Your task to perform on an android device: Go to notification settings Image 0: 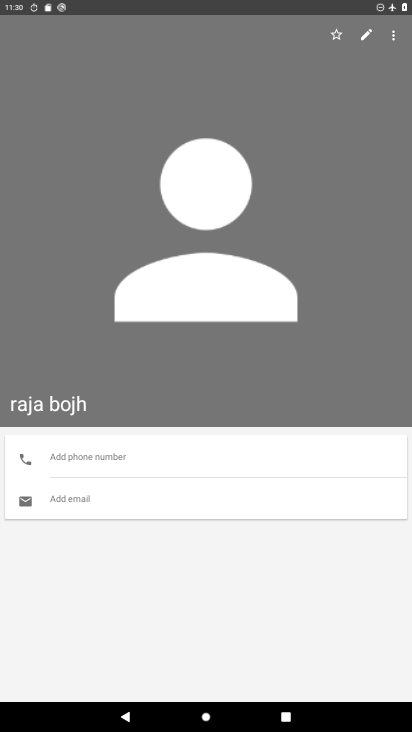
Step 0: press home button
Your task to perform on an android device: Go to notification settings Image 1: 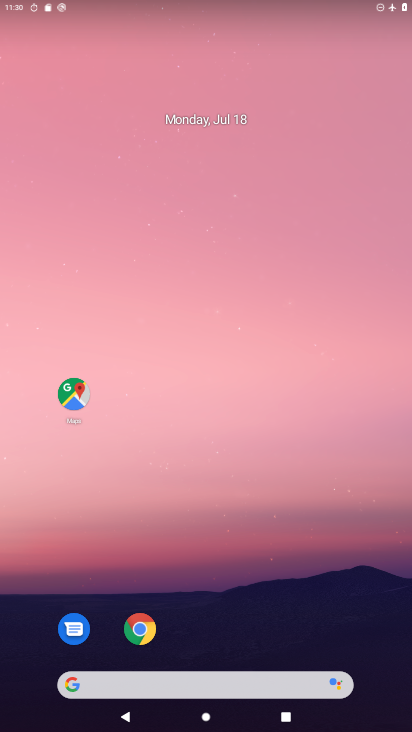
Step 1: click (227, 96)
Your task to perform on an android device: Go to notification settings Image 2: 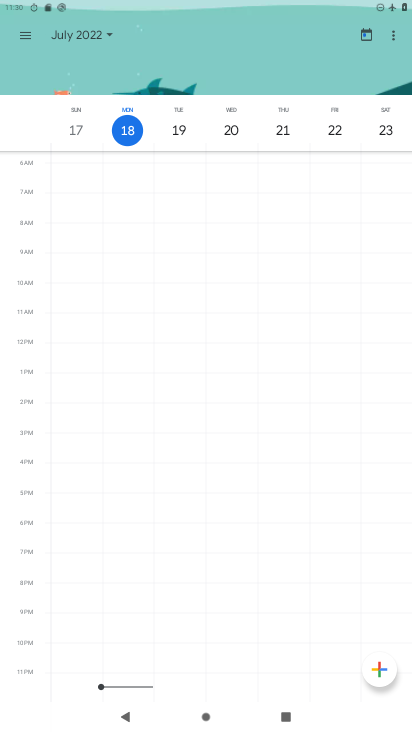
Step 2: press home button
Your task to perform on an android device: Go to notification settings Image 3: 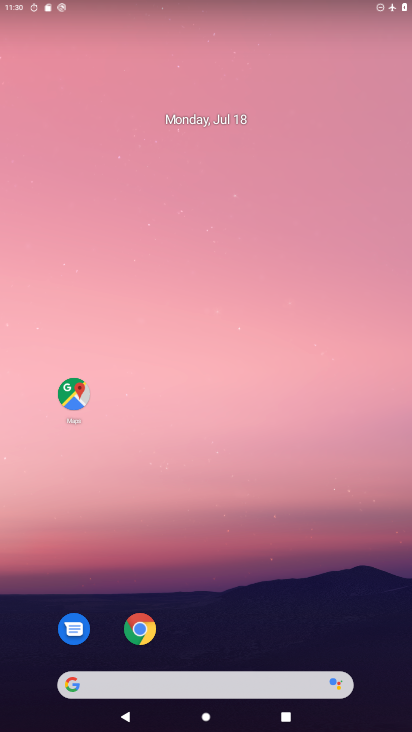
Step 3: drag from (293, 630) to (215, 136)
Your task to perform on an android device: Go to notification settings Image 4: 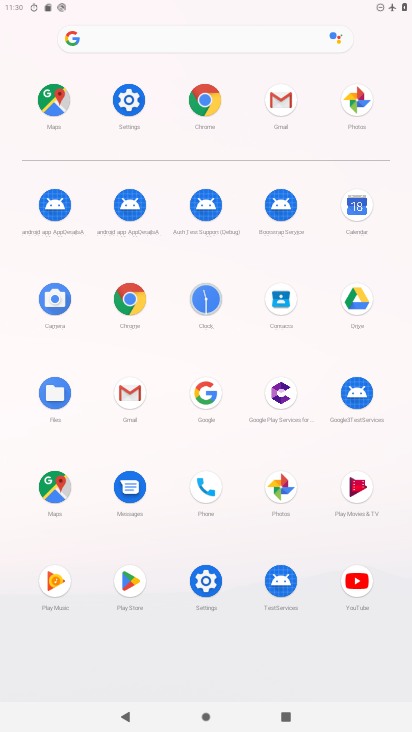
Step 4: click (130, 102)
Your task to perform on an android device: Go to notification settings Image 5: 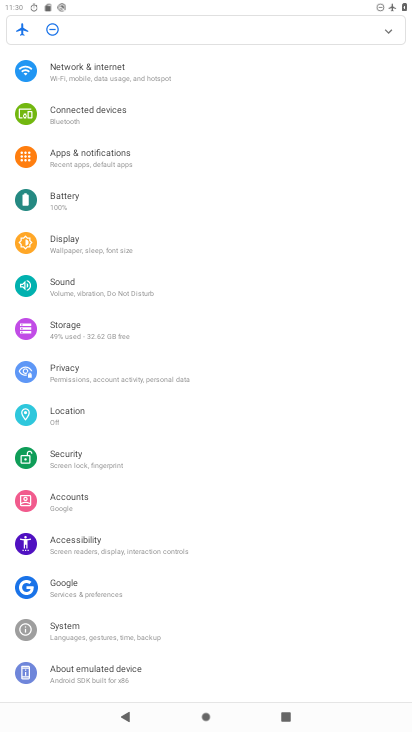
Step 5: click (109, 164)
Your task to perform on an android device: Go to notification settings Image 6: 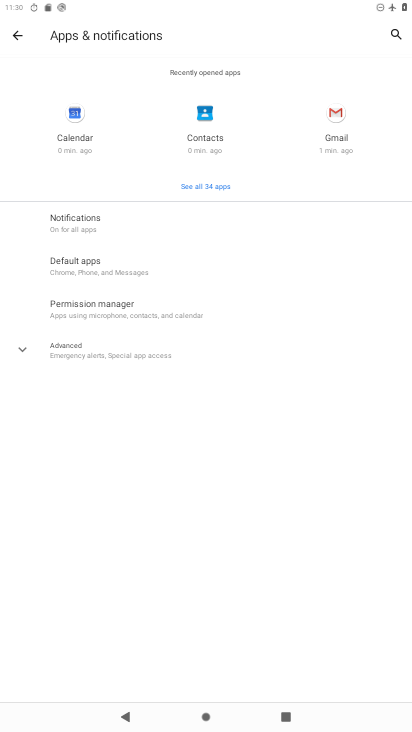
Step 6: click (107, 233)
Your task to perform on an android device: Go to notification settings Image 7: 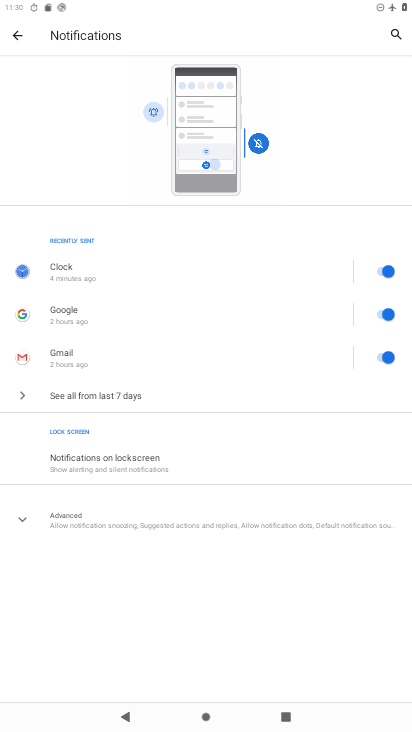
Step 7: task complete